Your task to perform on an android device: Do I have any events this weekend? Image 0: 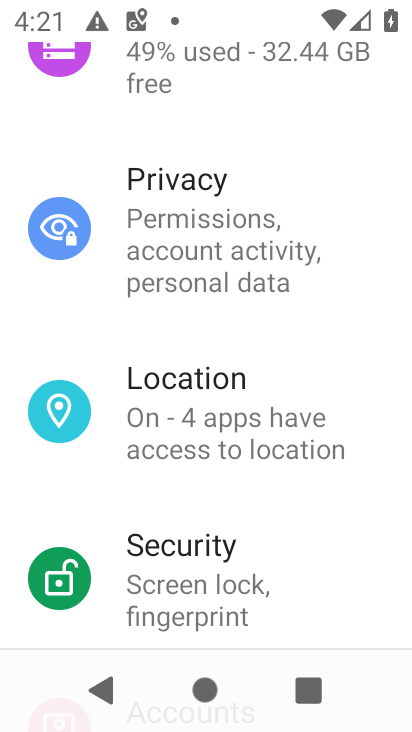
Step 0: press home button
Your task to perform on an android device: Do I have any events this weekend? Image 1: 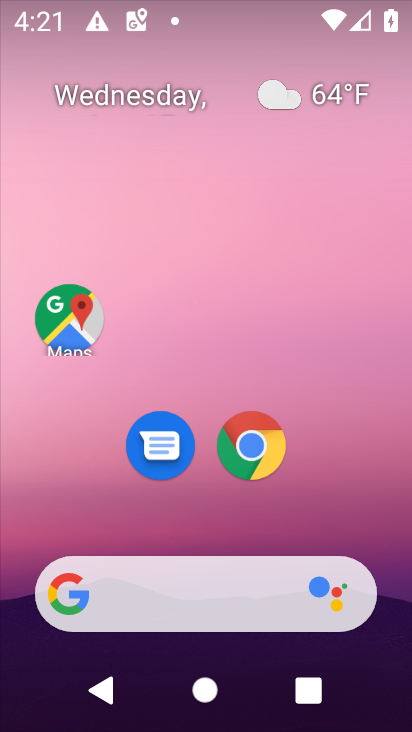
Step 1: drag from (328, 498) to (337, 113)
Your task to perform on an android device: Do I have any events this weekend? Image 2: 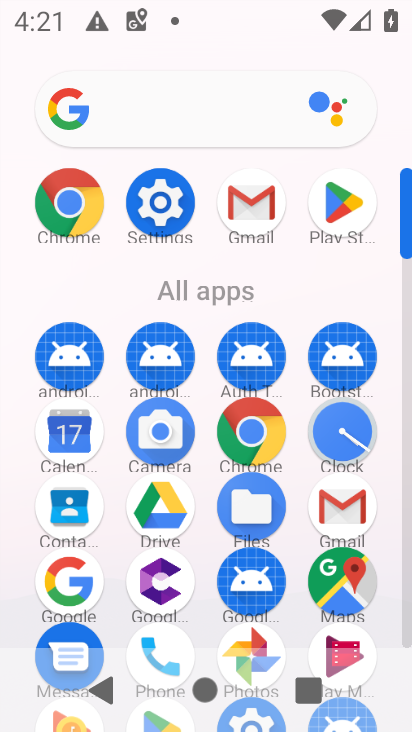
Step 2: click (76, 443)
Your task to perform on an android device: Do I have any events this weekend? Image 3: 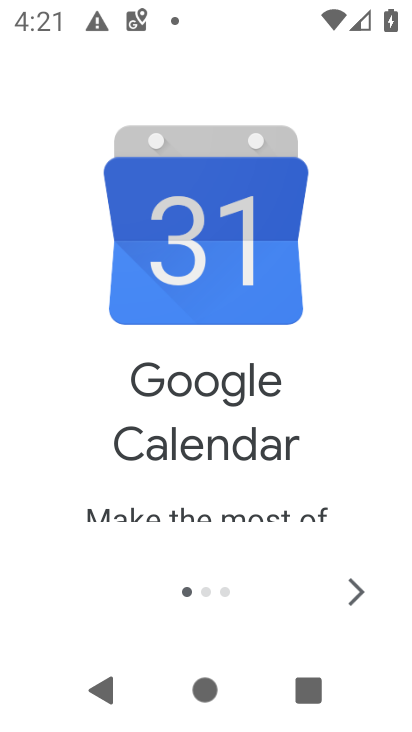
Step 3: click (343, 591)
Your task to perform on an android device: Do I have any events this weekend? Image 4: 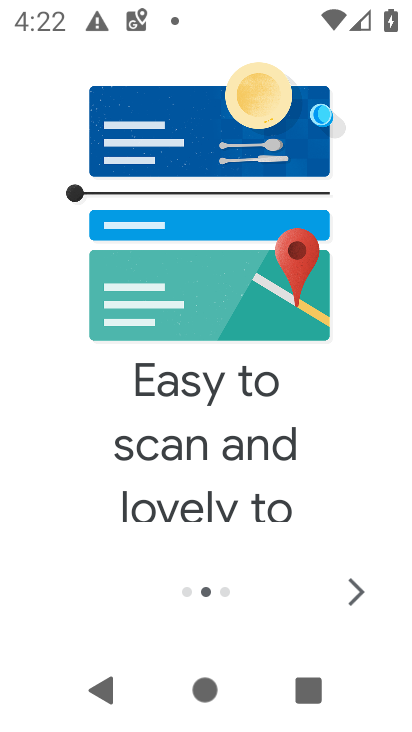
Step 4: click (358, 585)
Your task to perform on an android device: Do I have any events this weekend? Image 5: 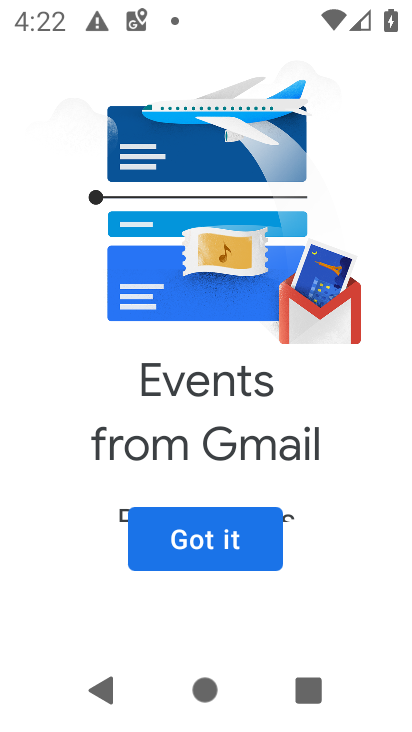
Step 5: click (252, 532)
Your task to perform on an android device: Do I have any events this weekend? Image 6: 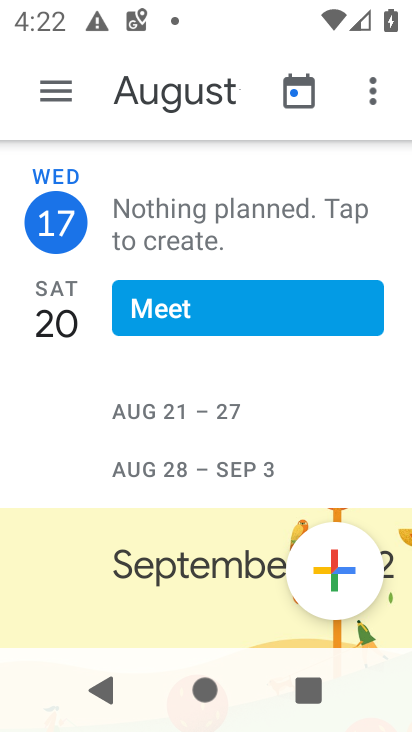
Step 6: click (55, 84)
Your task to perform on an android device: Do I have any events this weekend? Image 7: 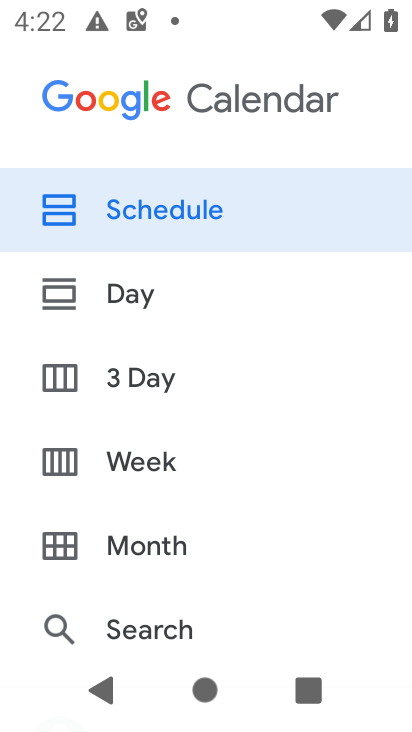
Step 7: click (154, 370)
Your task to perform on an android device: Do I have any events this weekend? Image 8: 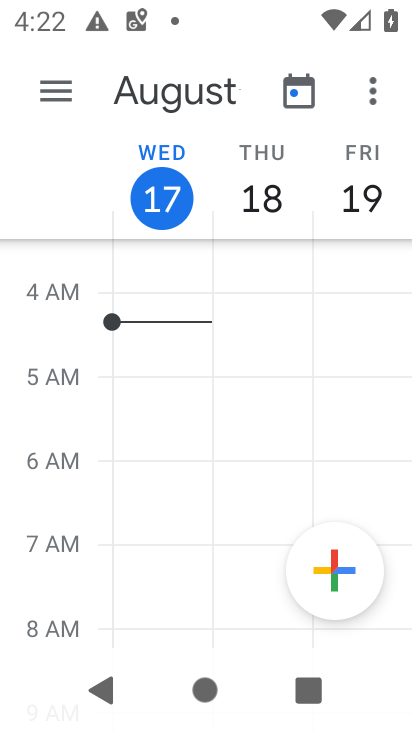
Step 8: task complete